Your task to perform on an android device: turn on location history Image 0: 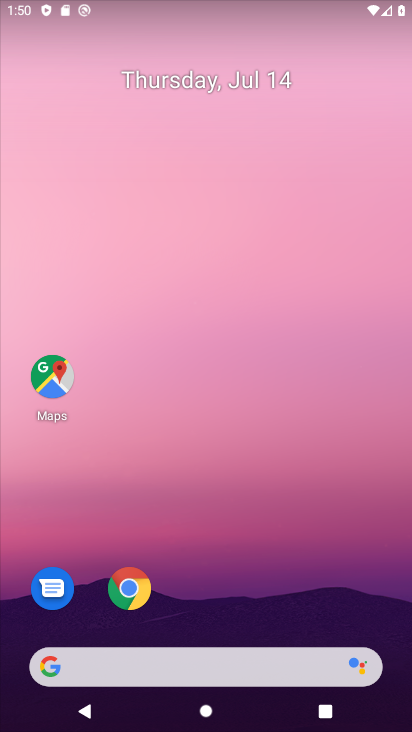
Step 0: drag from (263, 606) to (268, 100)
Your task to perform on an android device: turn on location history Image 1: 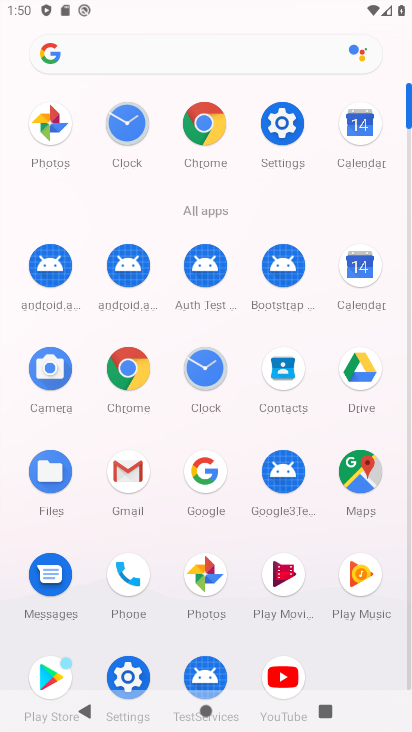
Step 1: click (276, 113)
Your task to perform on an android device: turn on location history Image 2: 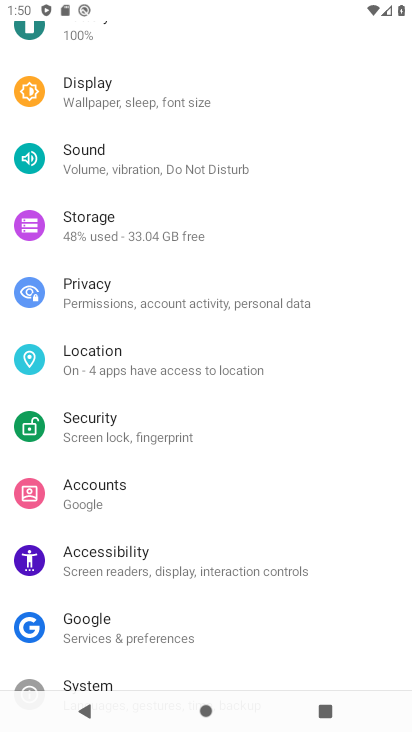
Step 2: click (138, 342)
Your task to perform on an android device: turn on location history Image 3: 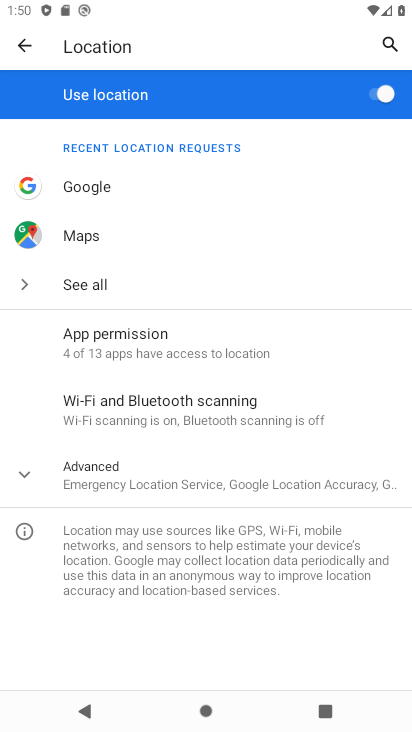
Step 3: click (135, 477)
Your task to perform on an android device: turn on location history Image 4: 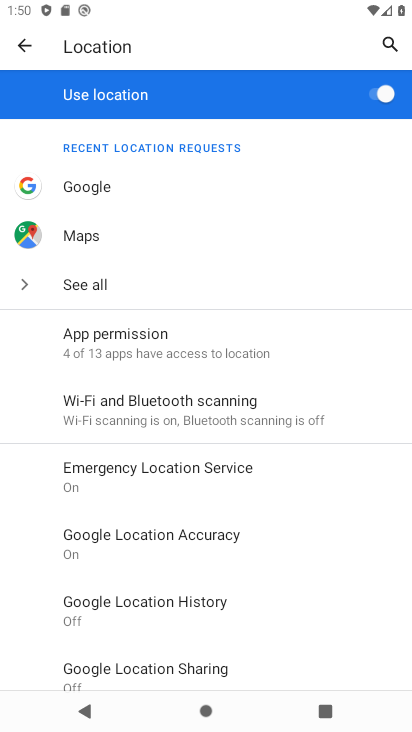
Step 4: click (170, 591)
Your task to perform on an android device: turn on location history Image 5: 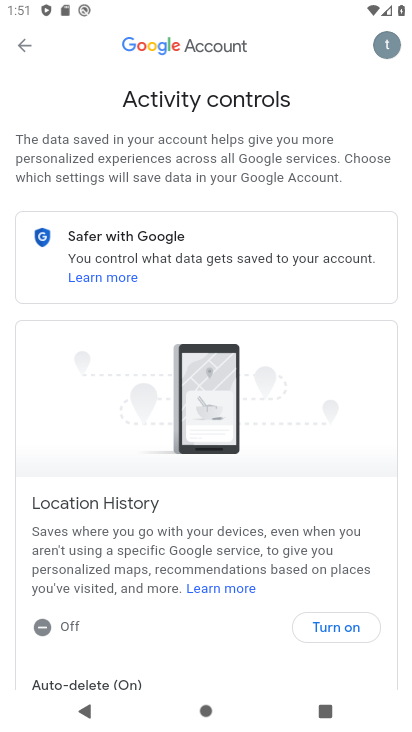
Step 5: click (327, 633)
Your task to perform on an android device: turn on location history Image 6: 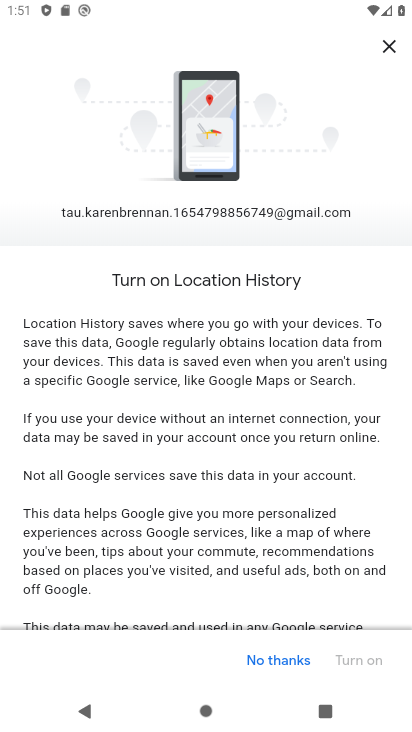
Step 6: drag from (325, 615) to (365, 176)
Your task to perform on an android device: turn on location history Image 7: 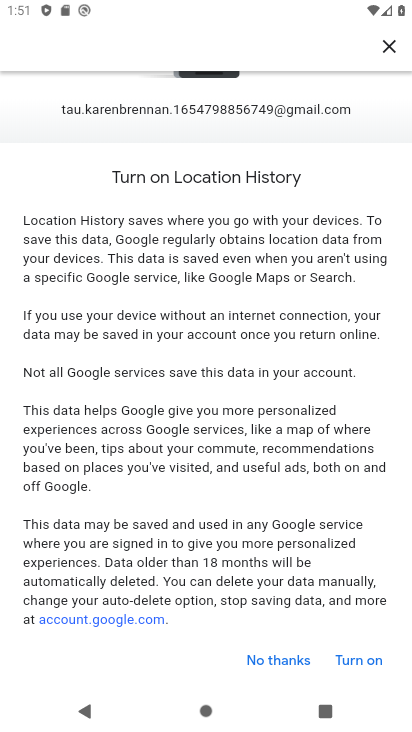
Step 7: click (343, 654)
Your task to perform on an android device: turn on location history Image 8: 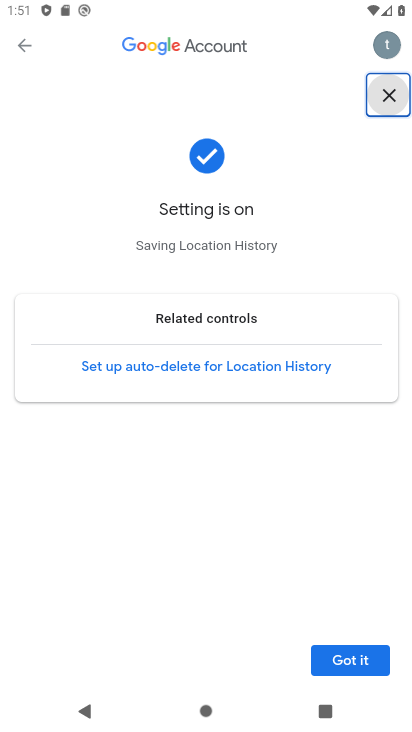
Step 8: click (366, 650)
Your task to perform on an android device: turn on location history Image 9: 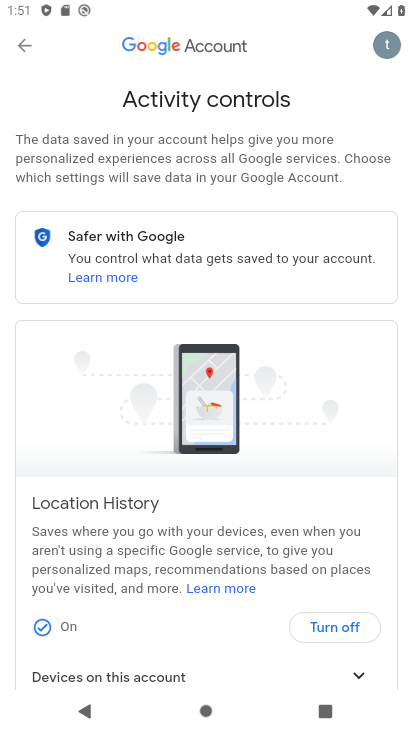
Step 9: task complete